Your task to perform on an android device: Open Maps and search for coffee Image 0: 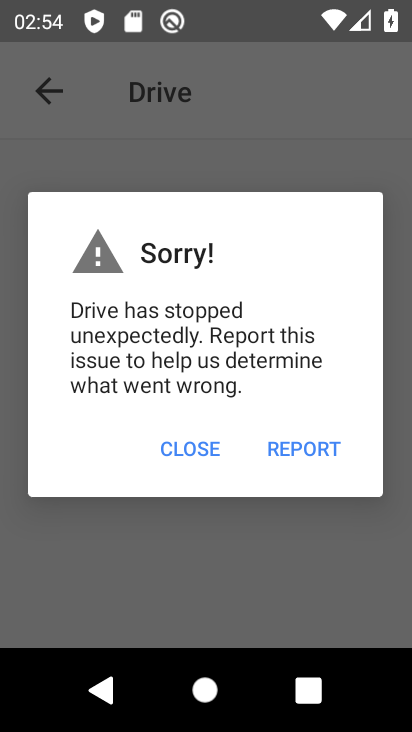
Step 0: press home button
Your task to perform on an android device: Open Maps and search for coffee Image 1: 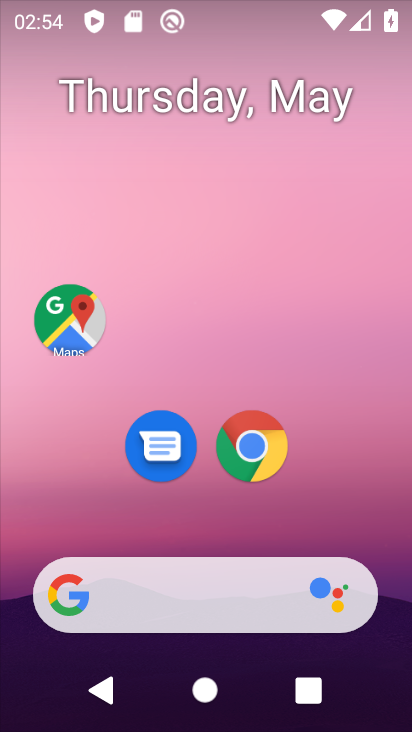
Step 1: click (74, 323)
Your task to perform on an android device: Open Maps and search for coffee Image 2: 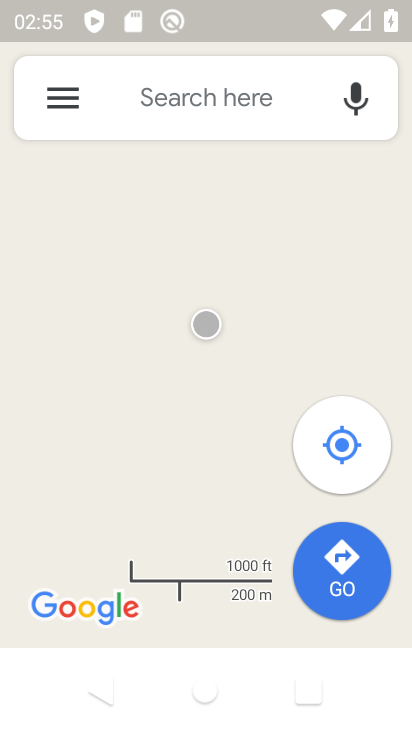
Step 2: click (163, 105)
Your task to perform on an android device: Open Maps and search for coffee Image 3: 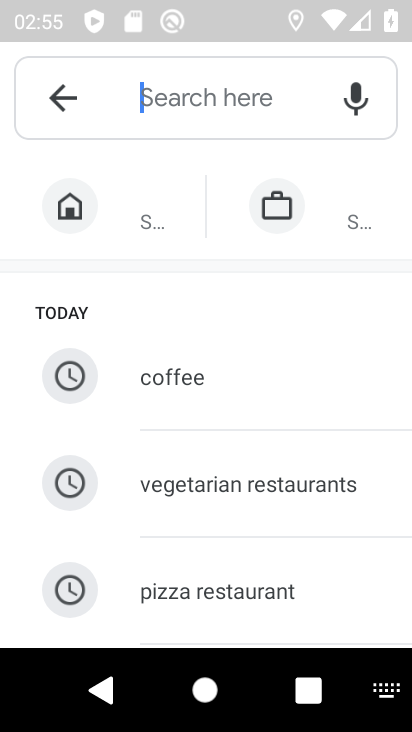
Step 3: type "coffee"
Your task to perform on an android device: Open Maps and search for coffee Image 4: 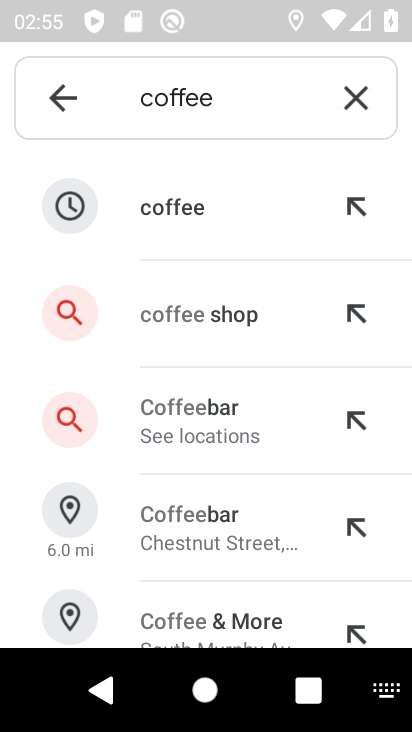
Step 4: click (184, 204)
Your task to perform on an android device: Open Maps and search for coffee Image 5: 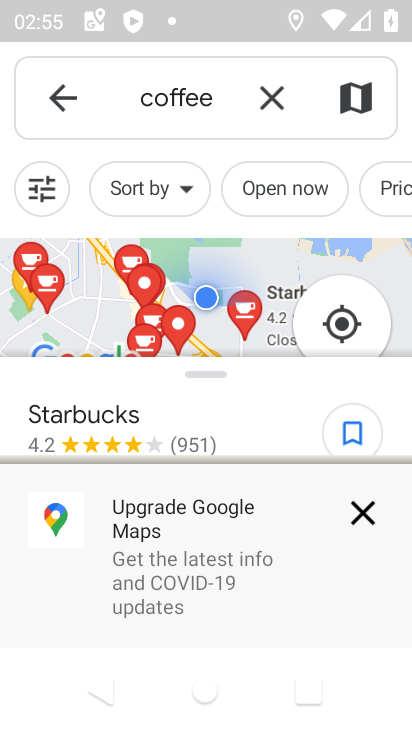
Step 5: click (370, 516)
Your task to perform on an android device: Open Maps and search for coffee Image 6: 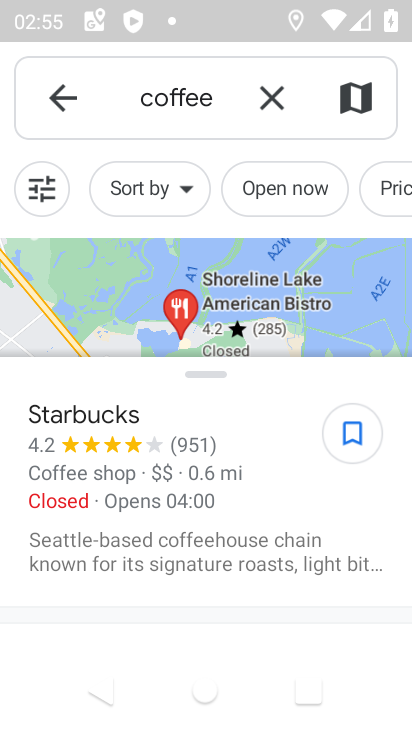
Step 6: task complete